Your task to perform on an android device: turn on notifications settings in the gmail app Image 0: 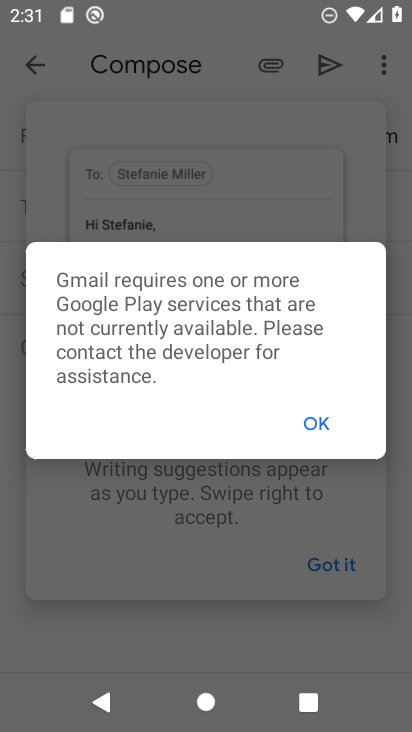
Step 0: press back button
Your task to perform on an android device: turn on notifications settings in the gmail app Image 1: 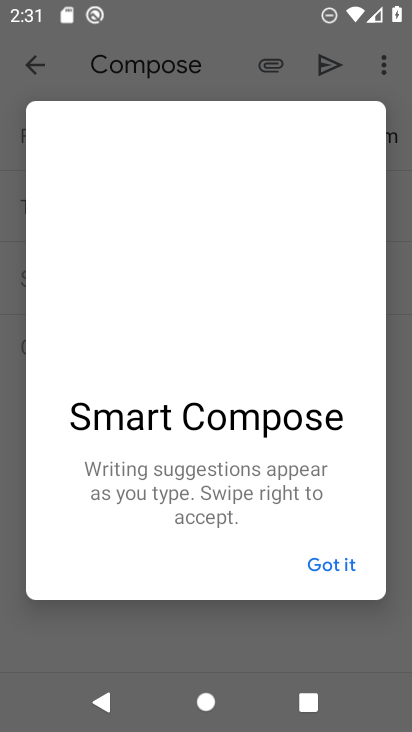
Step 1: press home button
Your task to perform on an android device: turn on notifications settings in the gmail app Image 2: 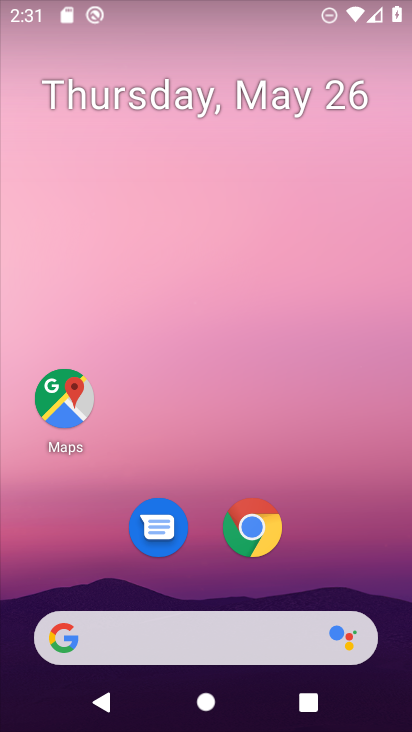
Step 2: drag from (176, 580) to (267, 89)
Your task to perform on an android device: turn on notifications settings in the gmail app Image 3: 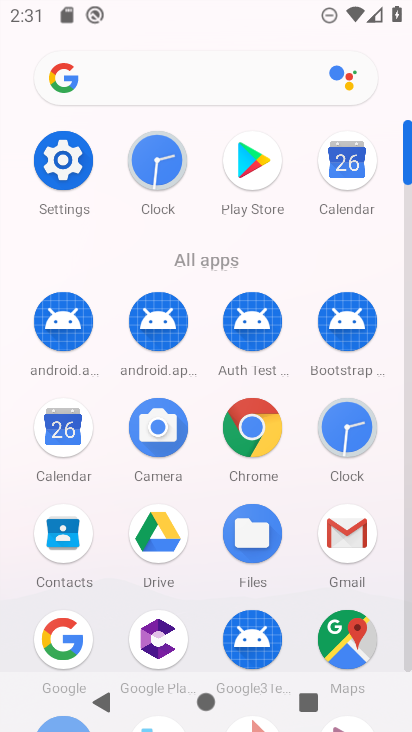
Step 3: click (342, 539)
Your task to perform on an android device: turn on notifications settings in the gmail app Image 4: 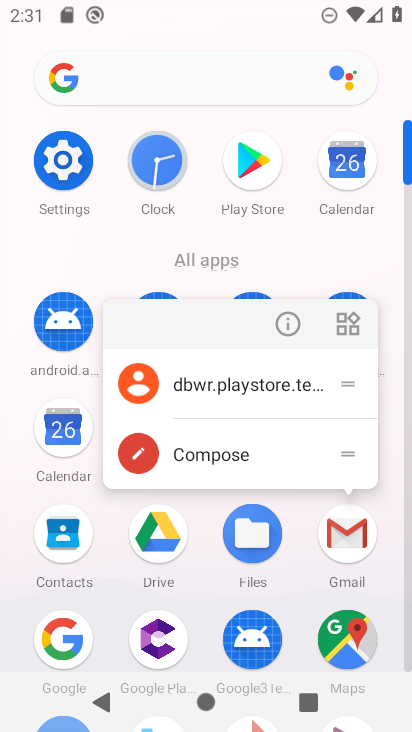
Step 4: click (288, 325)
Your task to perform on an android device: turn on notifications settings in the gmail app Image 5: 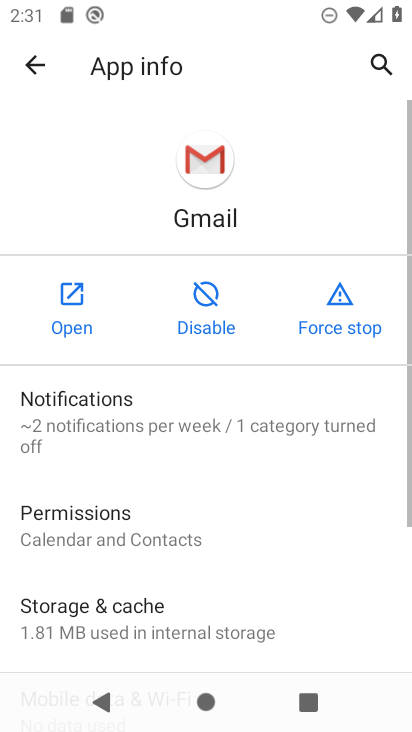
Step 5: click (151, 406)
Your task to perform on an android device: turn on notifications settings in the gmail app Image 6: 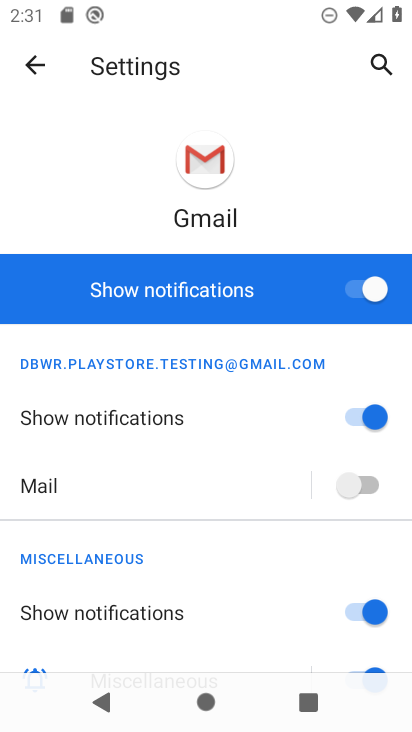
Step 6: task complete